Your task to perform on an android device: turn off picture-in-picture Image 0: 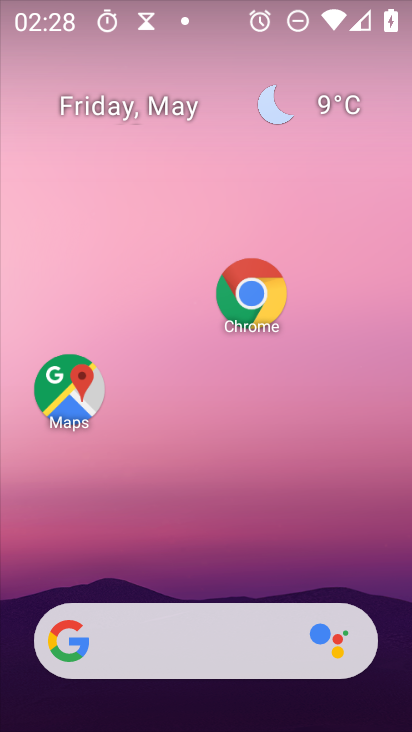
Step 0: press home button
Your task to perform on an android device: turn off picture-in-picture Image 1: 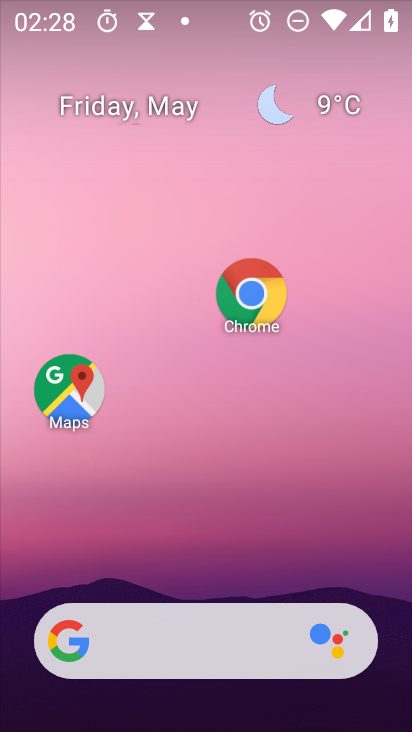
Step 1: click (268, 293)
Your task to perform on an android device: turn off picture-in-picture Image 2: 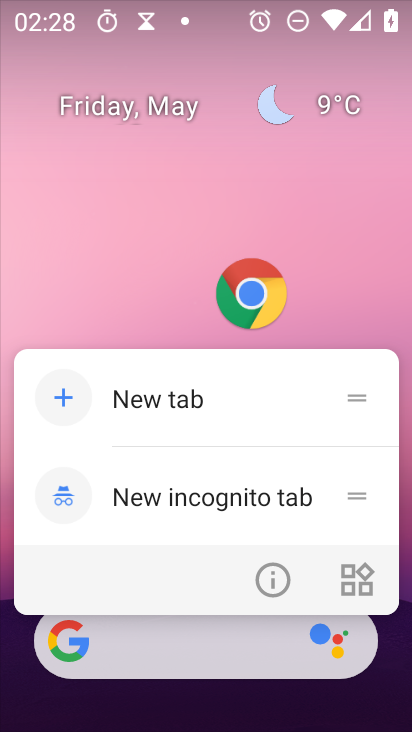
Step 2: click (287, 578)
Your task to perform on an android device: turn off picture-in-picture Image 3: 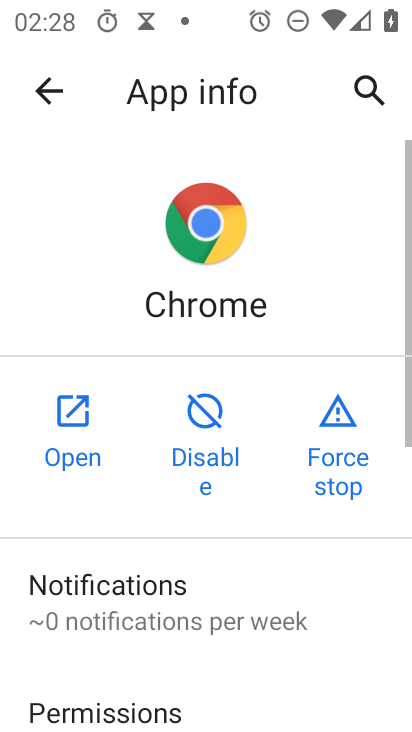
Step 3: drag from (226, 638) to (259, 342)
Your task to perform on an android device: turn off picture-in-picture Image 4: 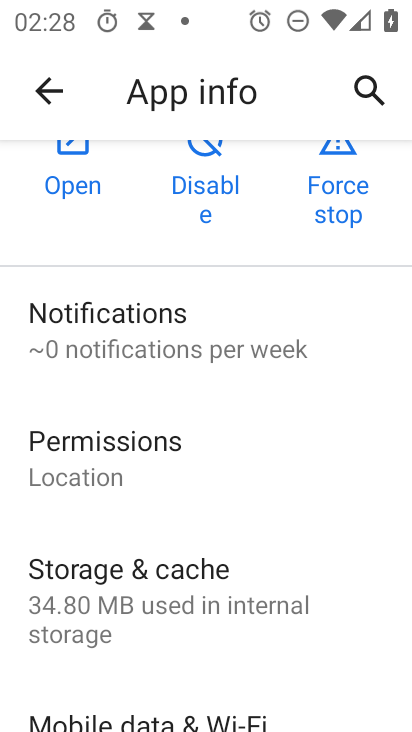
Step 4: drag from (208, 678) to (284, 232)
Your task to perform on an android device: turn off picture-in-picture Image 5: 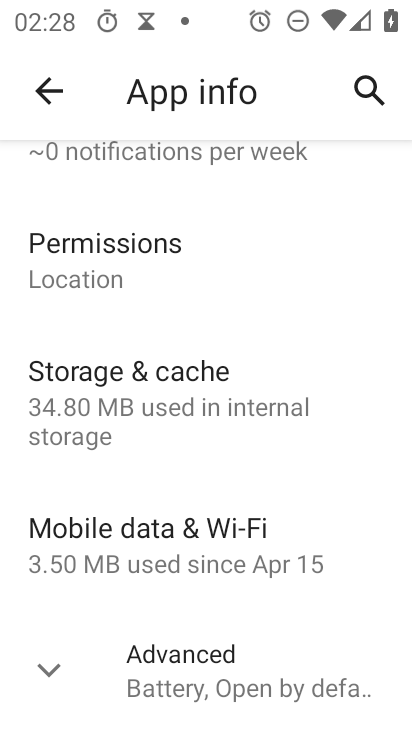
Step 5: click (60, 668)
Your task to perform on an android device: turn off picture-in-picture Image 6: 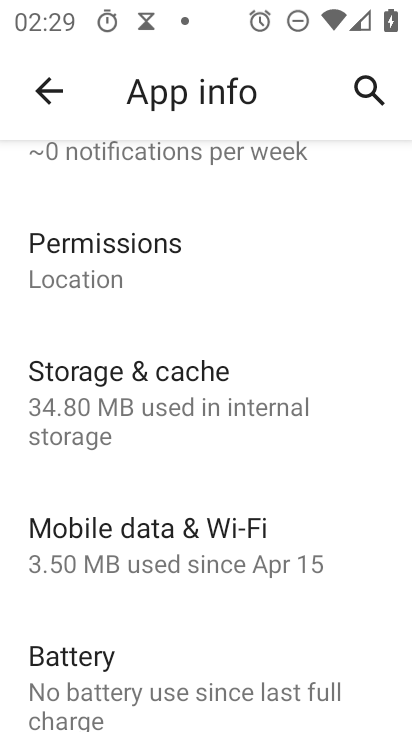
Step 6: drag from (209, 672) to (324, 333)
Your task to perform on an android device: turn off picture-in-picture Image 7: 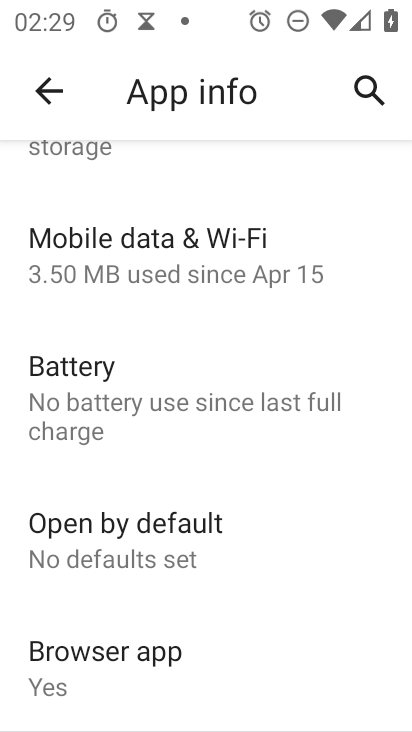
Step 7: drag from (261, 575) to (375, 234)
Your task to perform on an android device: turn off picture-in-picture Image 8: 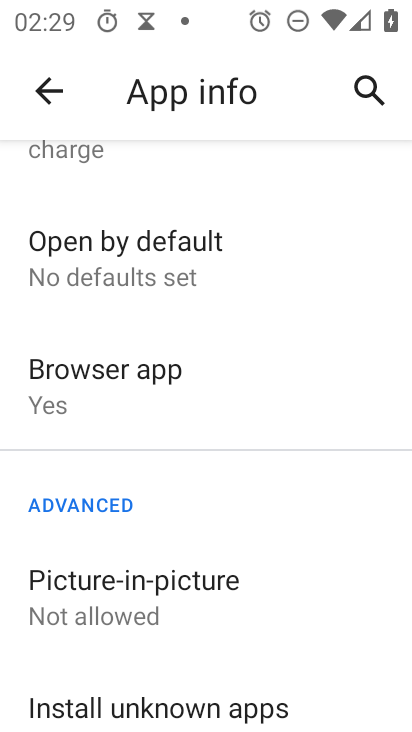
Step 8: click (138, 585)
Your task to perform on an android device: turn off picture-in-picture Image 9: 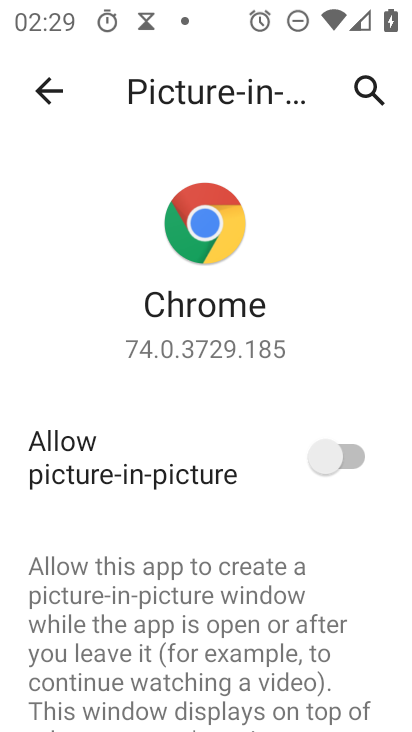
Step 9: task complete